Your task to perform on an android device: What's the latest video from GameSpot Trailers? Image 0: 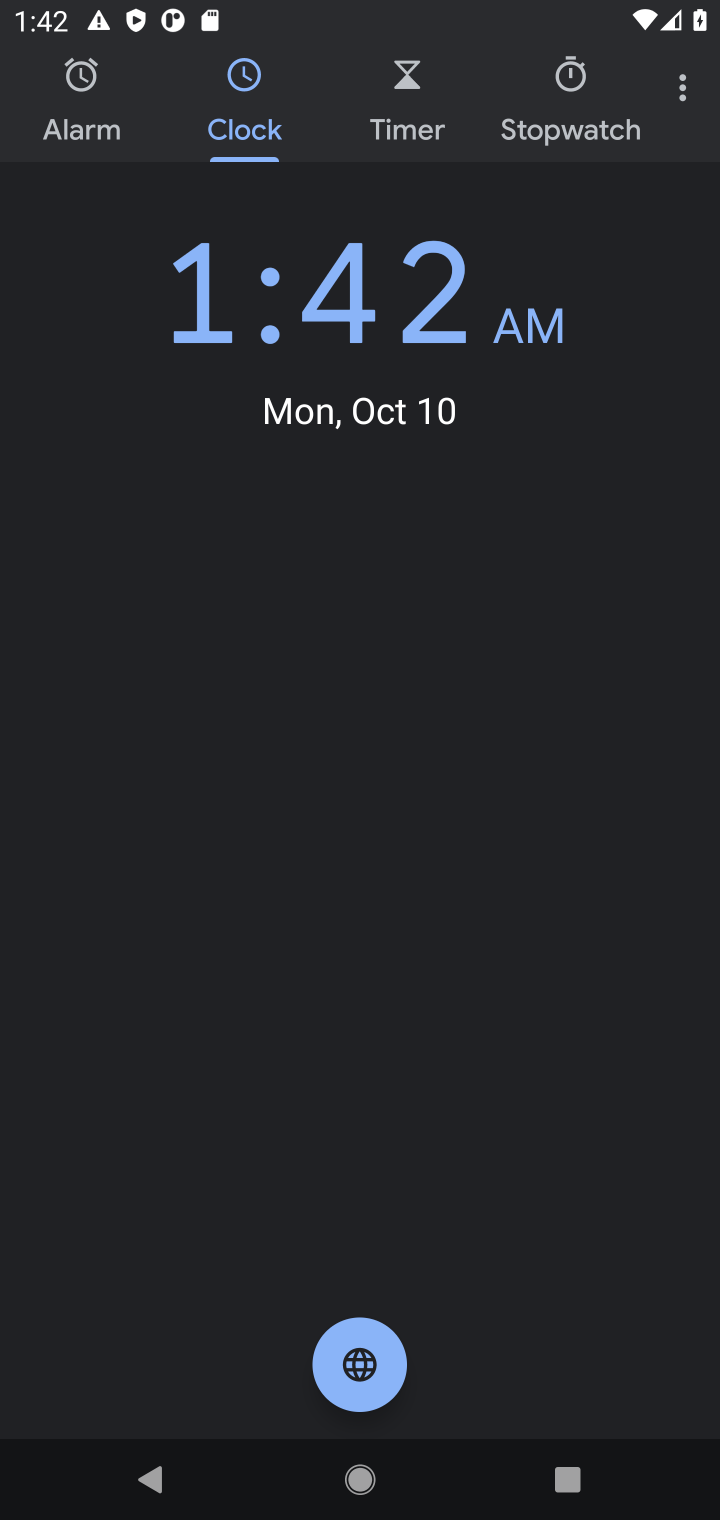
Step 0: press back button
Your task to perform on an android device: What's the latest video from GameSpot Trailers? Image 1: 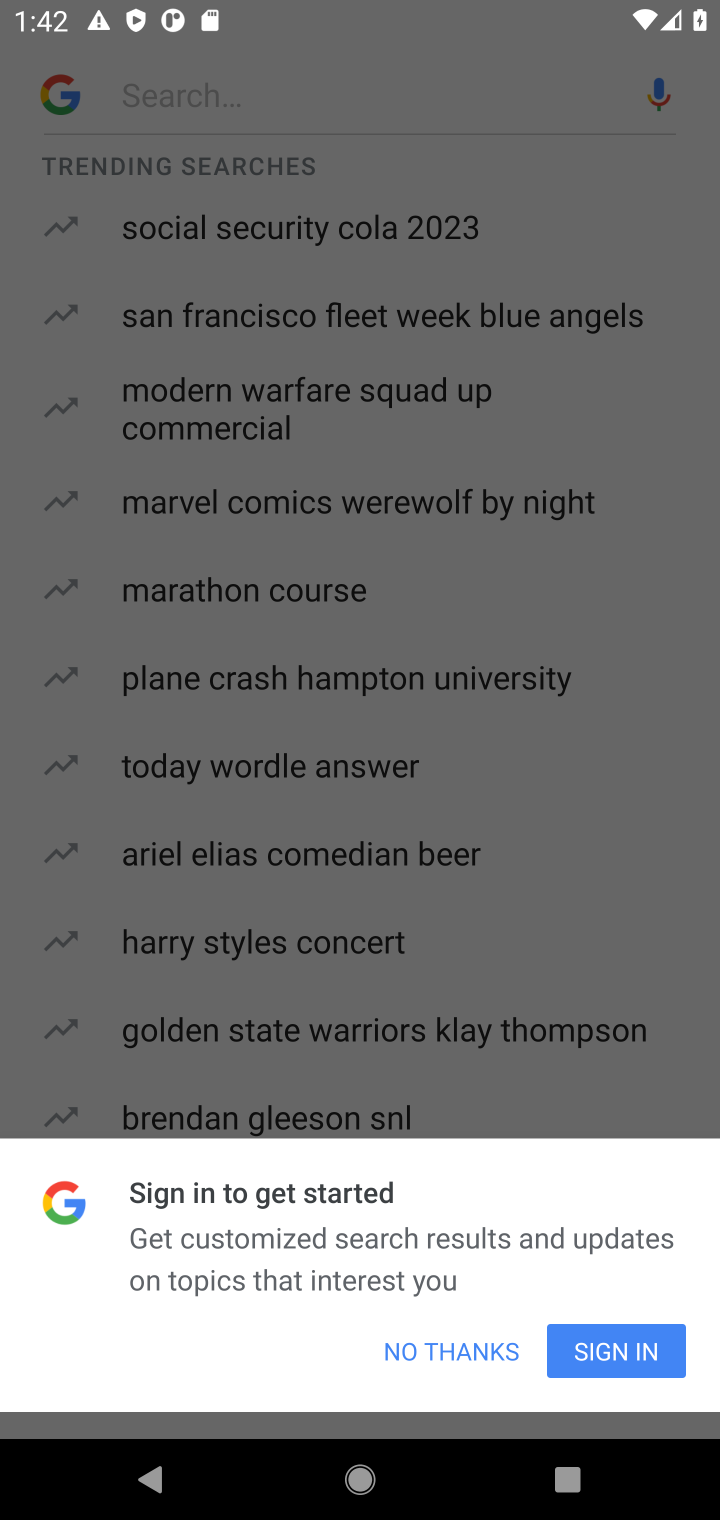
Step 1: press back button
Your task to perform on an android device: What's the latest video from GameSpot Trailers? Image 2: 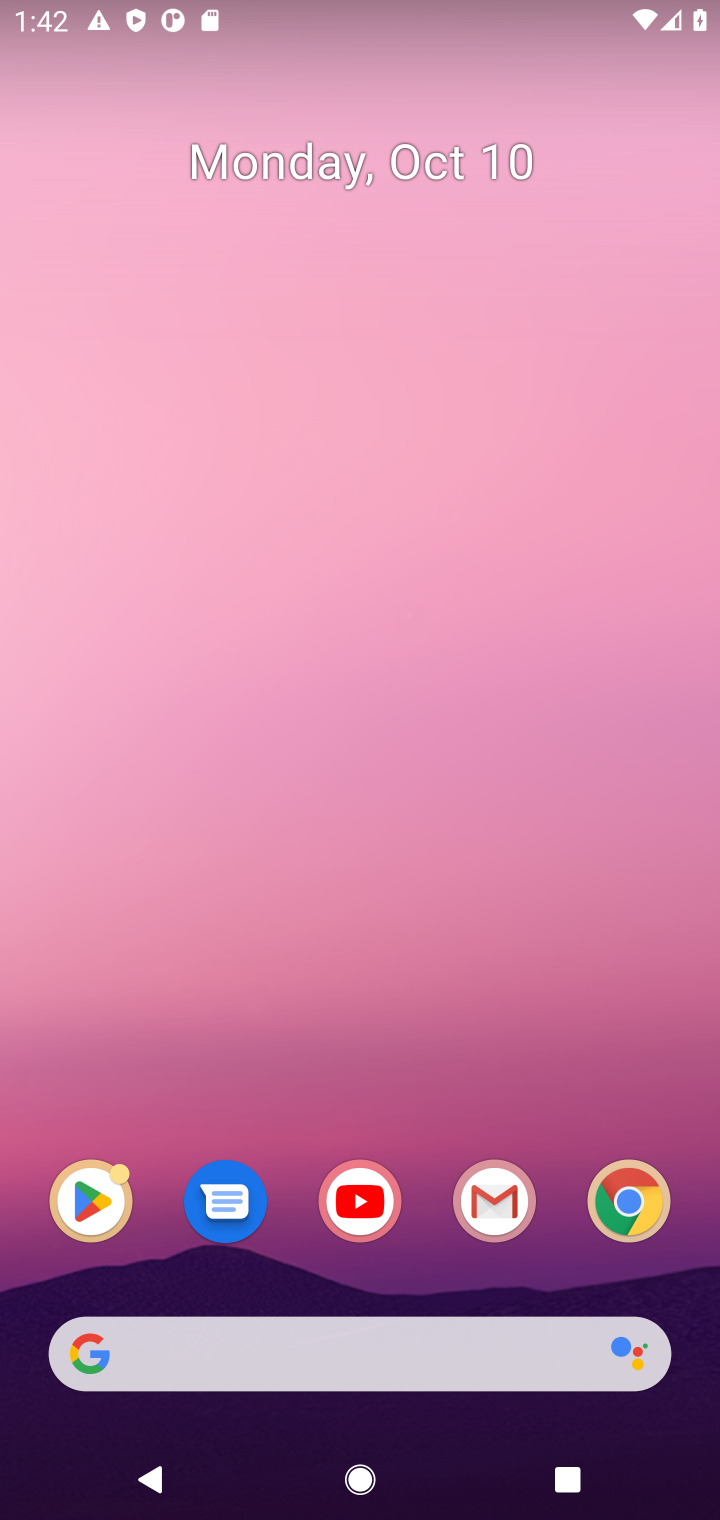
Step 2: drag from (229, 925) to (164, 182)
Your task to perform on an android device: What's the latest video from GameSpot Trailers? Image 3: 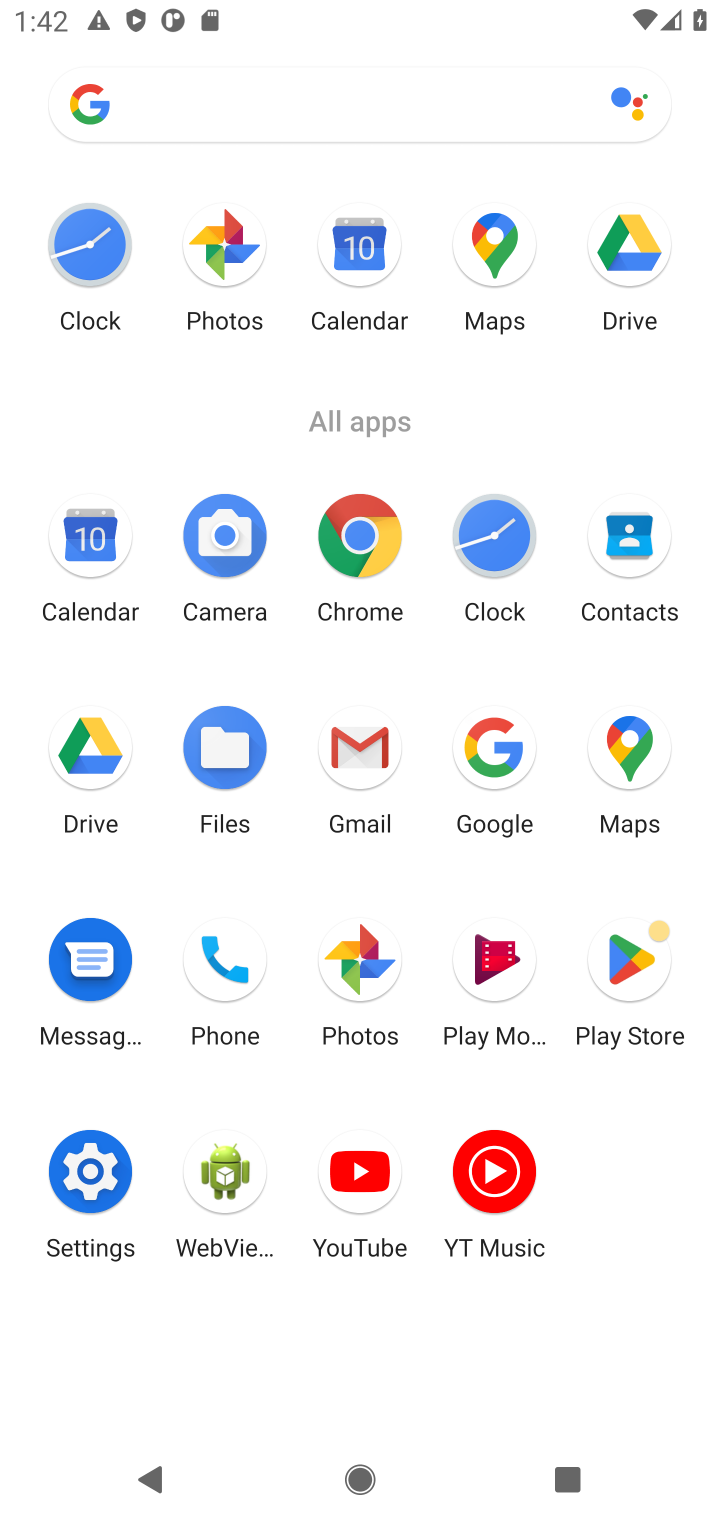
Step 3: click (360, 1171)
Your task to perform on an android device: What's the latest video from GameSpot Trailers? Image 4: 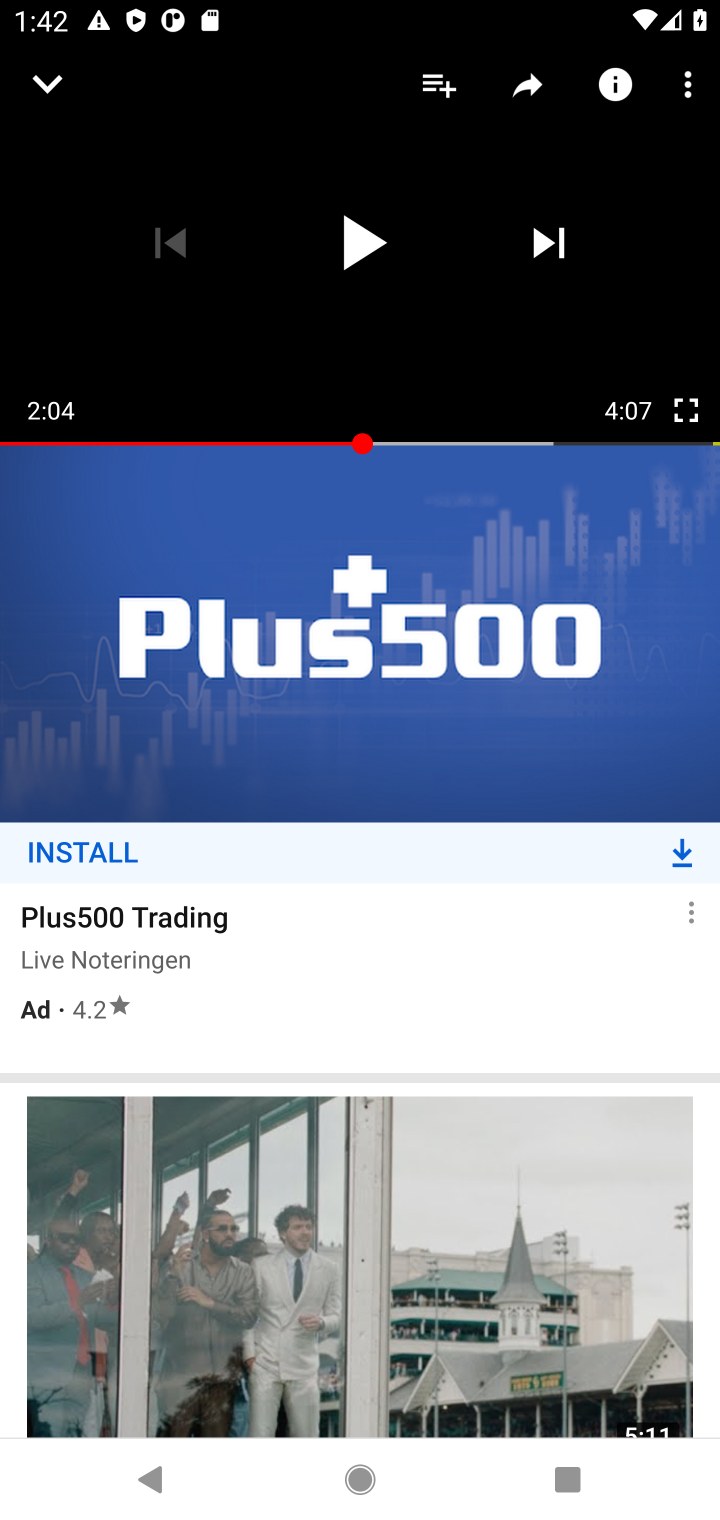
Step 4: press back button
Your task to perform on an android device: What's the latest video from GameSpot Trailers? Image 5: 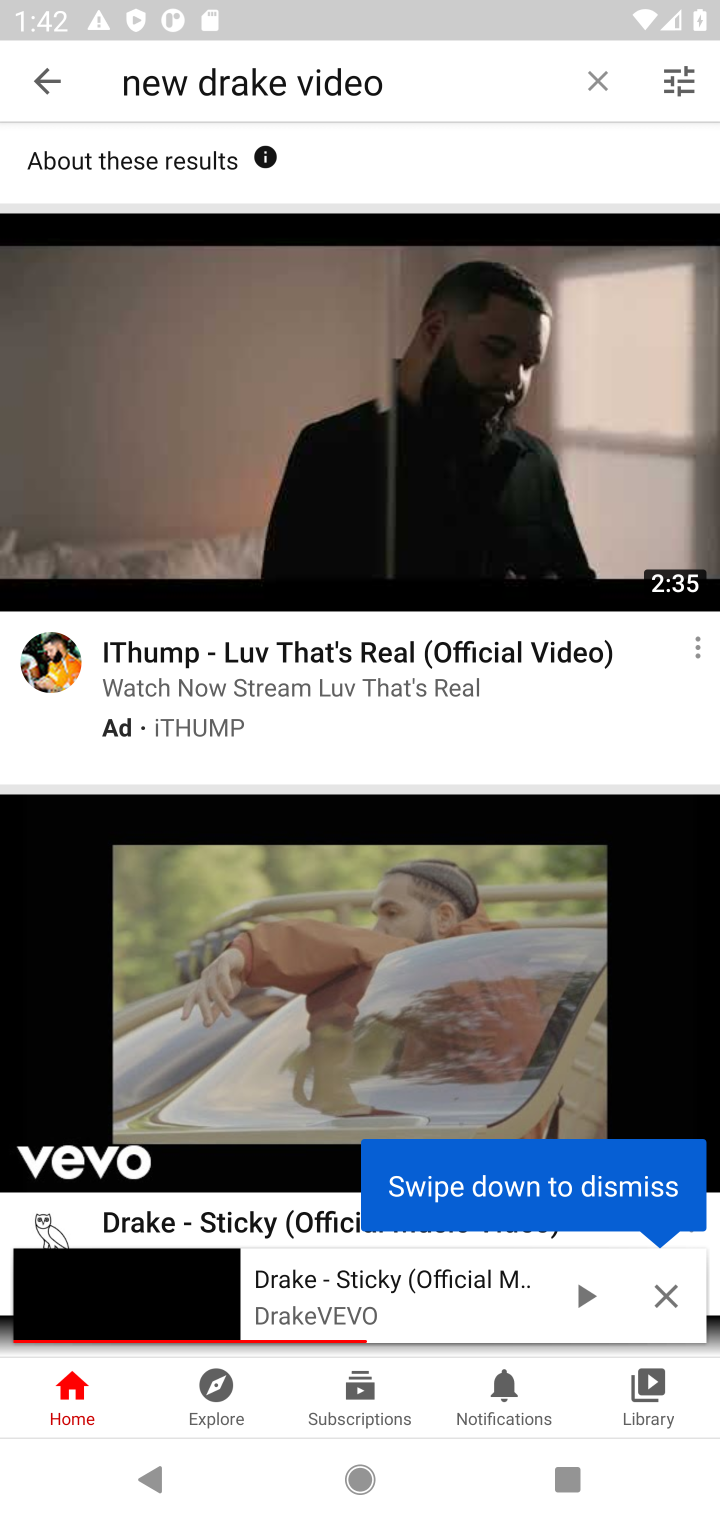
Step 5: click (40, 84)
Your task to perform on an android device: What's the latest video from GameSpot Trailers? Image 6: 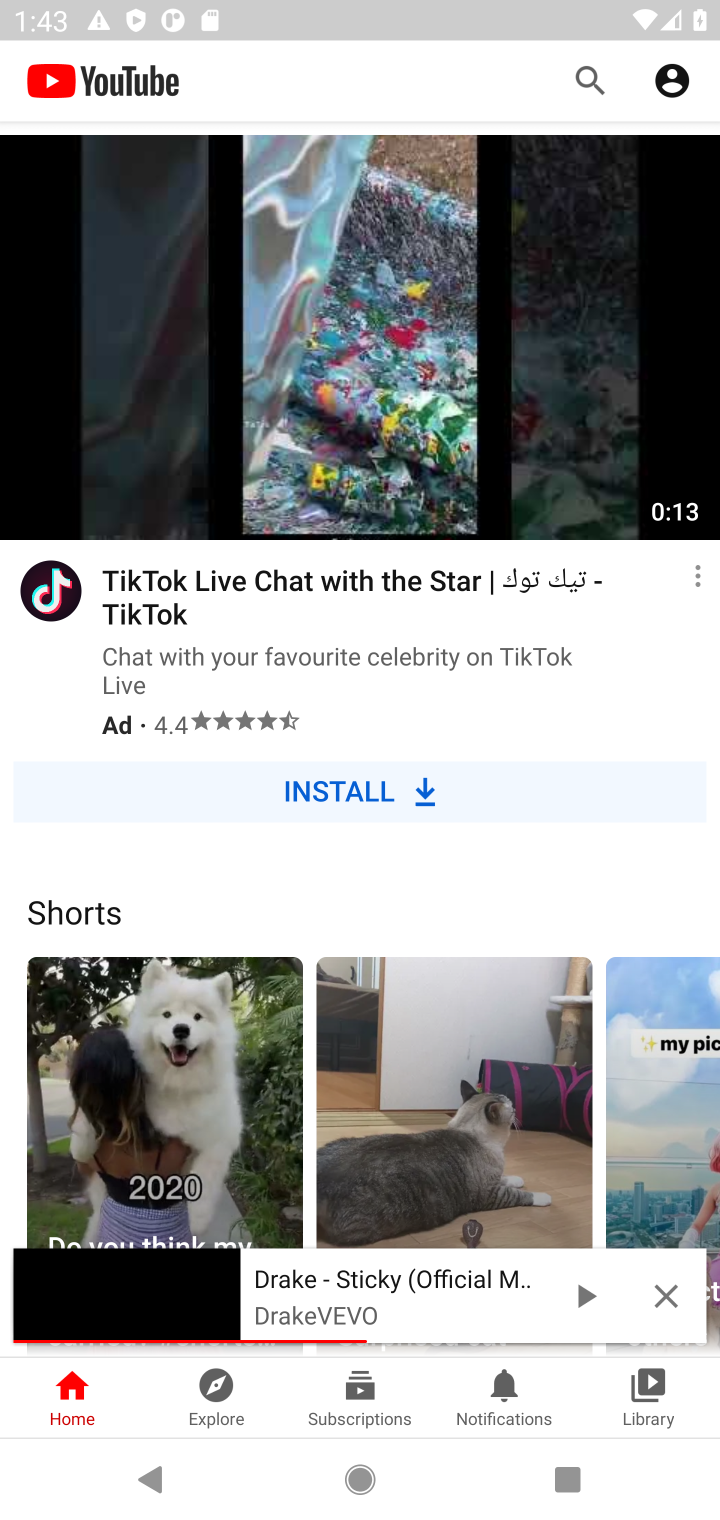
Step 6: click (581, 81)
Your task to perform on an android device: What's the latest video from GameSpot Trailers? Image 7: 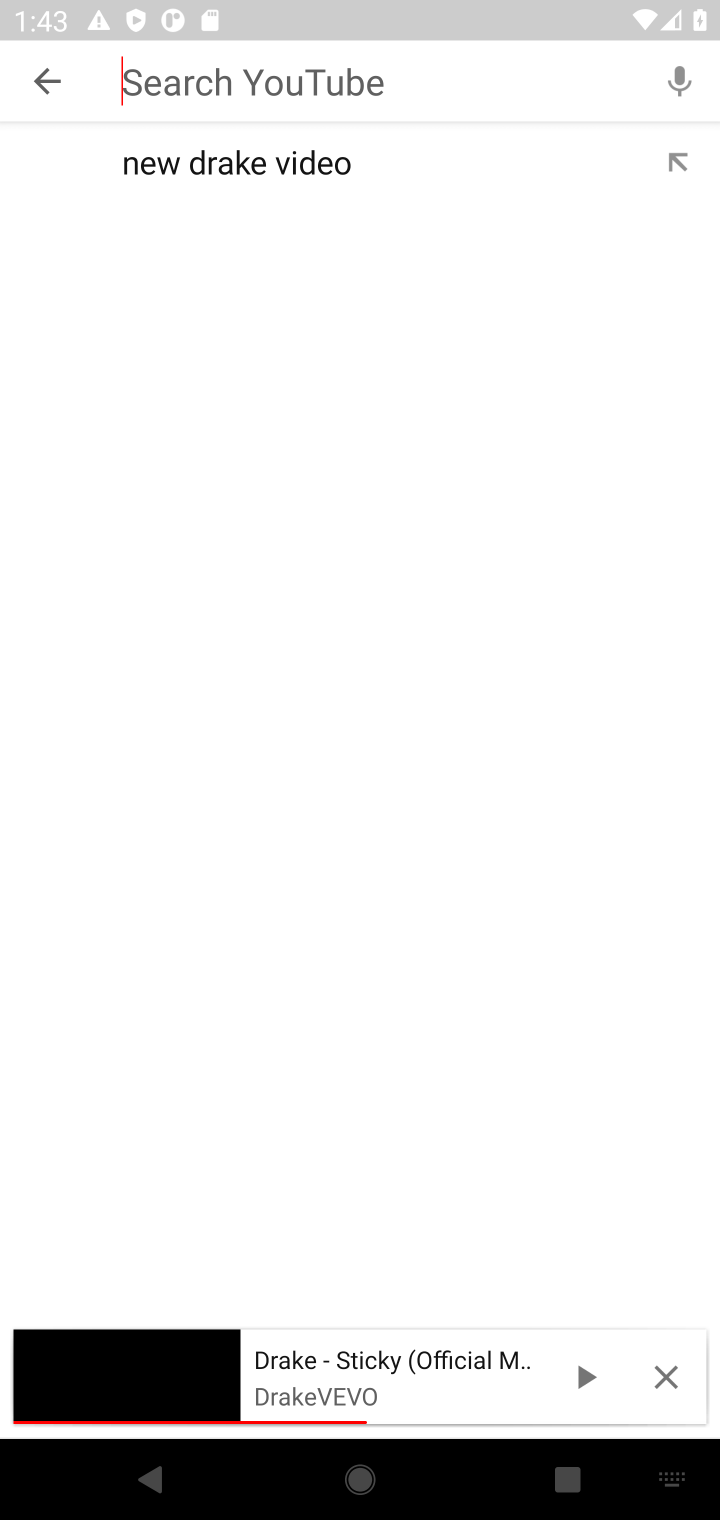
Step 7: type "GameSpot Trailers"
Your task to perform on an android device: What's the latest video from GameSpot Trailers? Image 8: 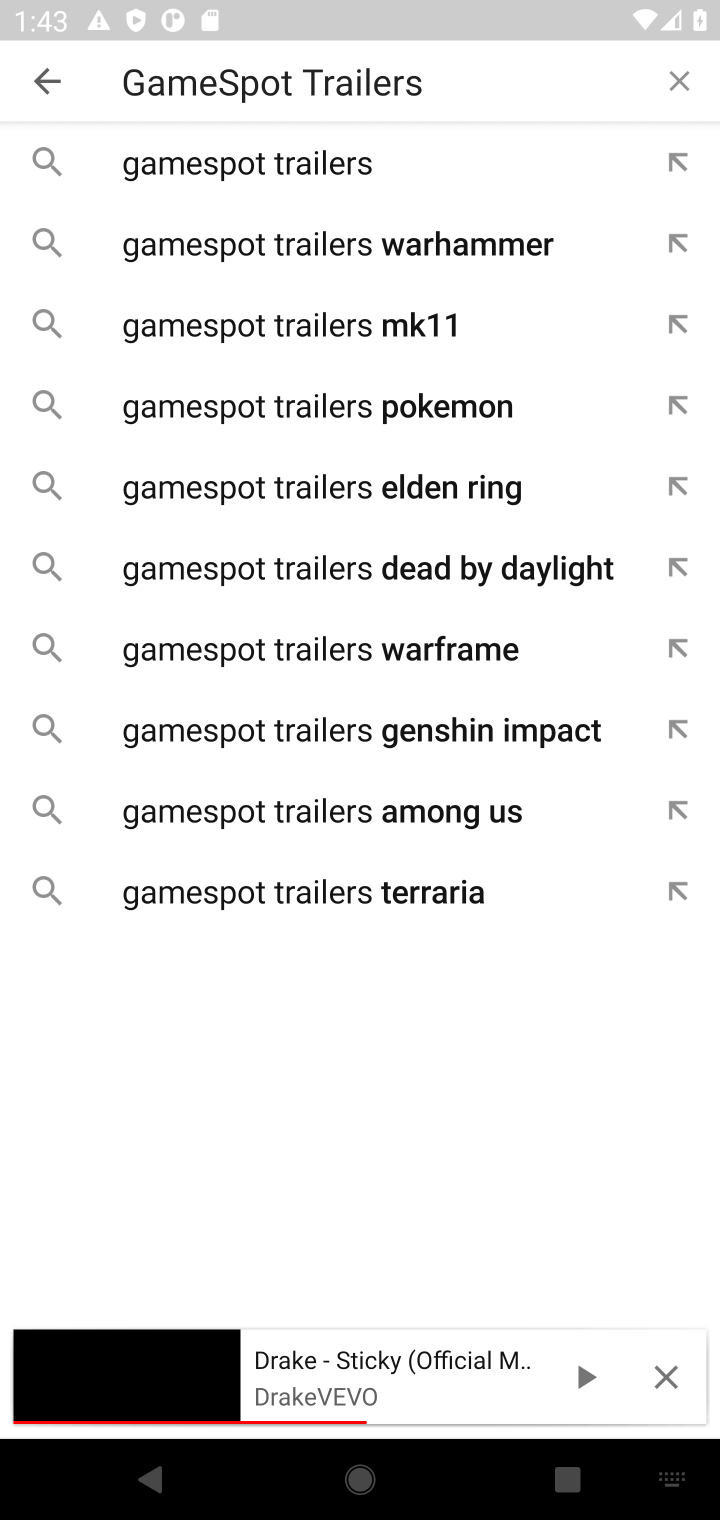
Step 8: type ""
Your task to perform on an android device: What's the latest video from GameSpot Trailers? Image 9: 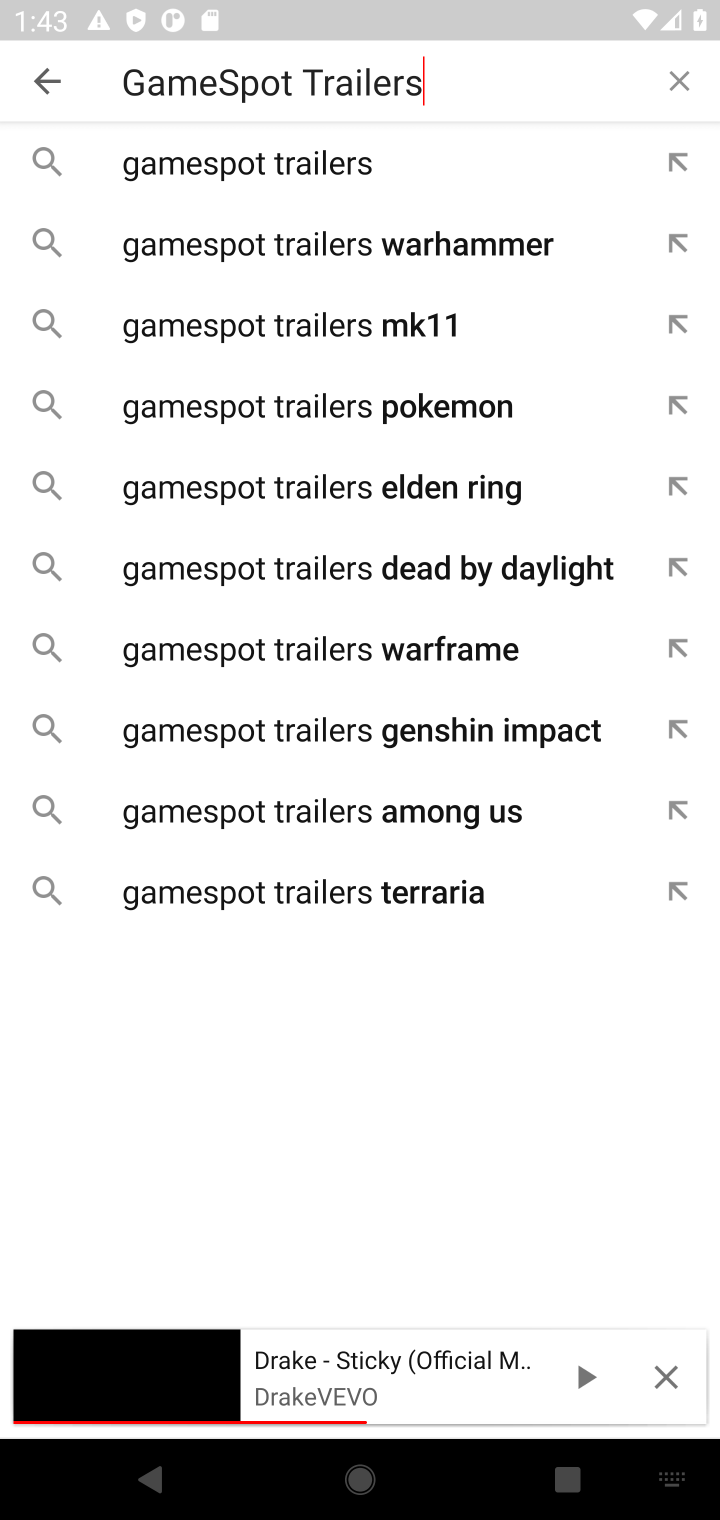
Step 9: click (328, 155)
Your task to perform on an android device: What's the latest video from GameSpot Trailers? Image 10: 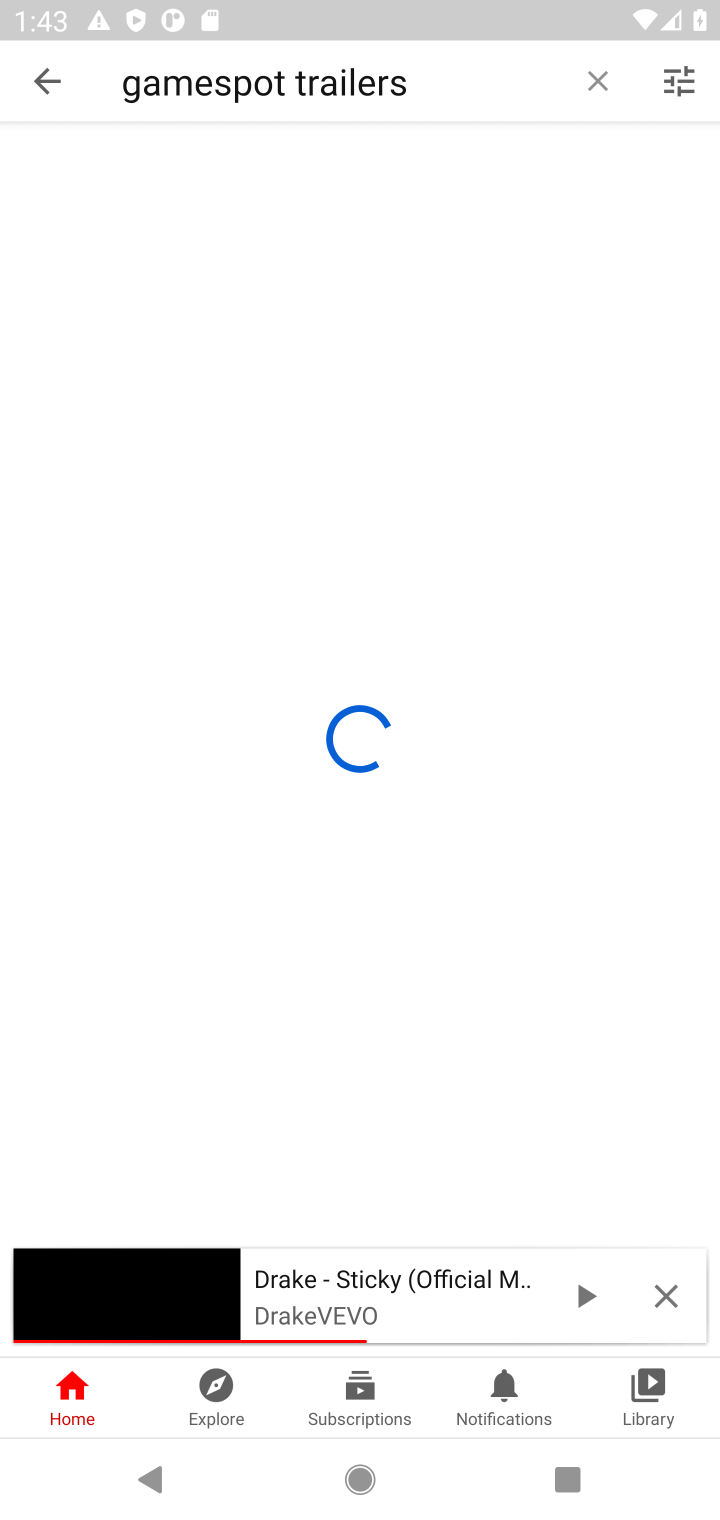
Step 10: press enter
Your task to perform on an android device: What's the latest video from GameSpot Trailers? Image 11: 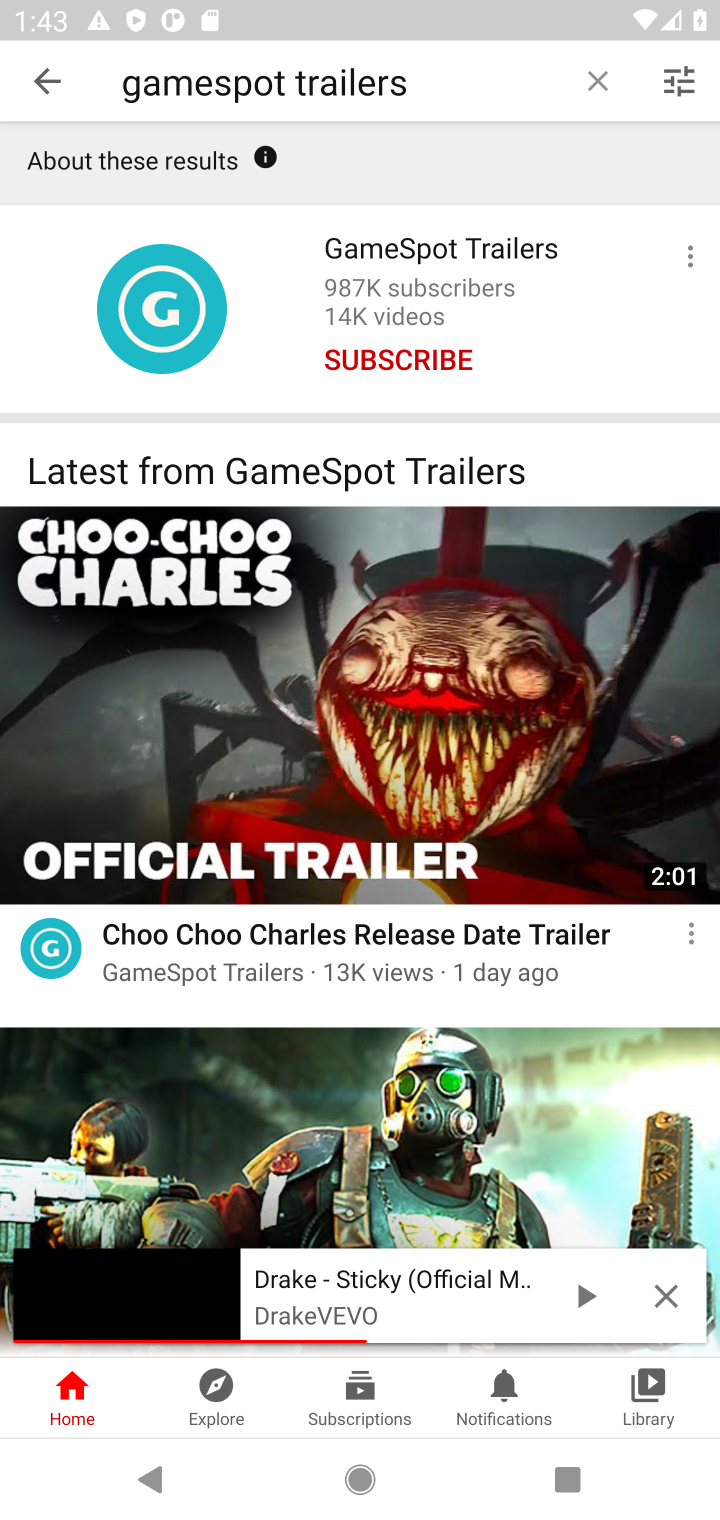
Step 11: click (465, 846)
Your task to perform on an android device: What's the latest video from GameSpot Trailers? Image 12: 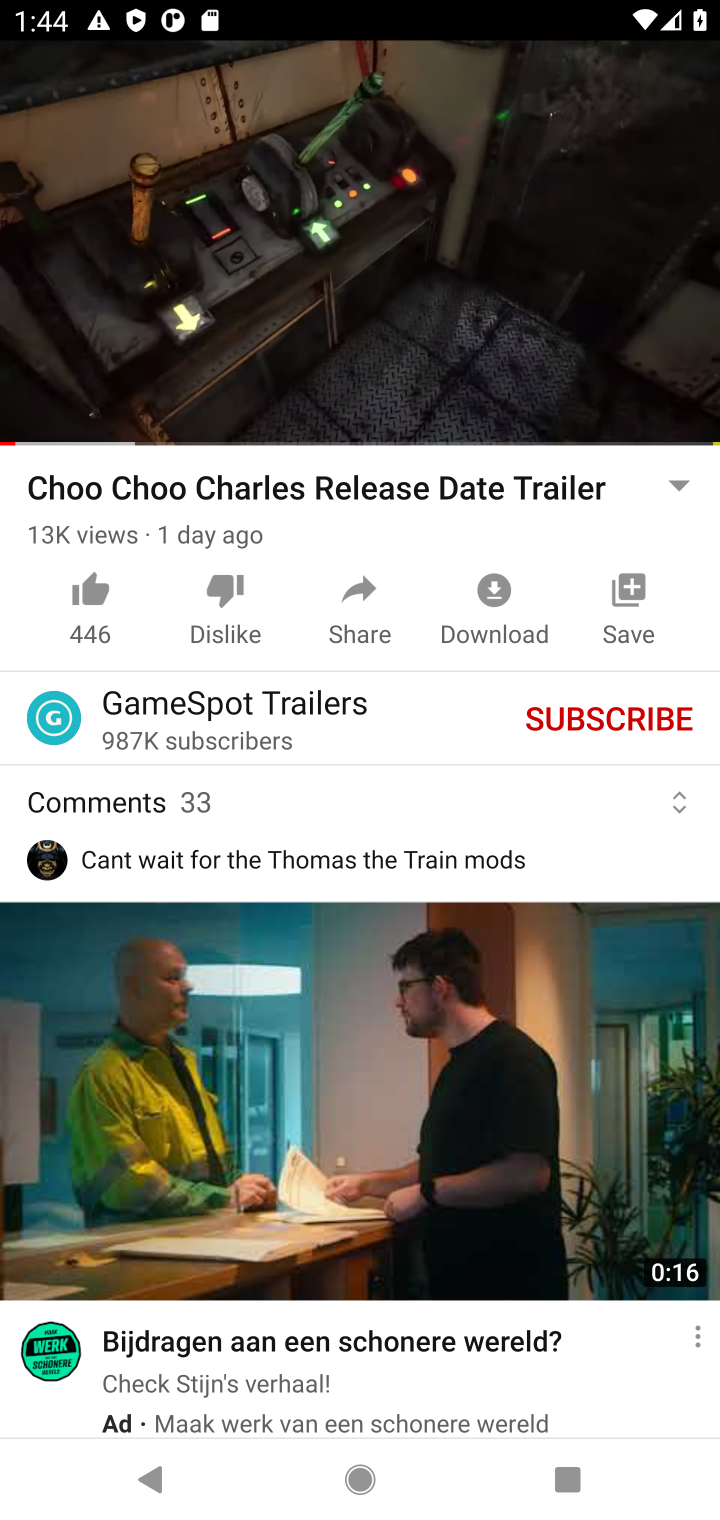
Step 12: click (561, 1385)
Your task to perform on an android device: What's the latest video from GameSpot Trailers? Image 13: 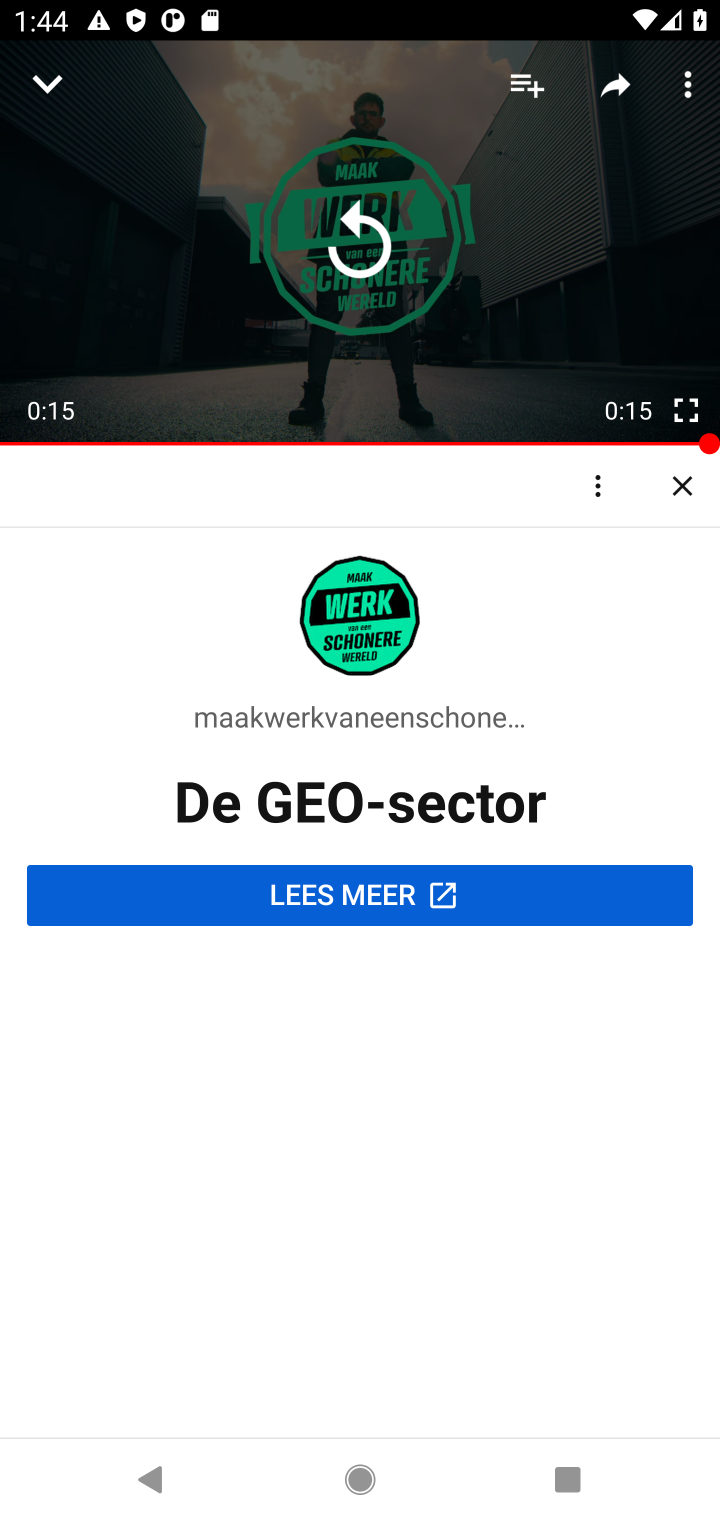
Step 13: click (687, 494)
Your task to perform on an android device: What's the latest video from GameSpot Trailers? Image 14: 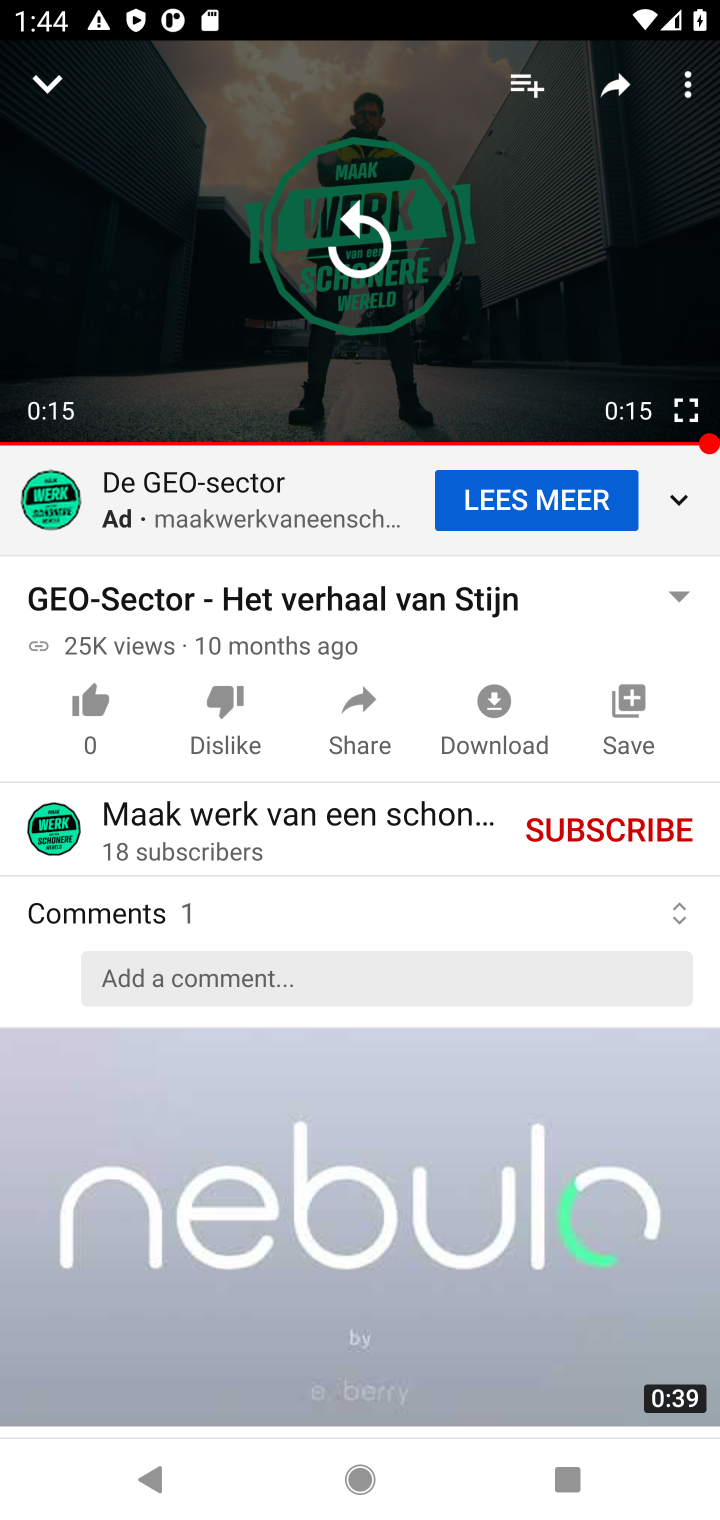
Step 14: task complete